Your task to perform on an android device: Open Youtube and go to the subscriptions tab Image 0: 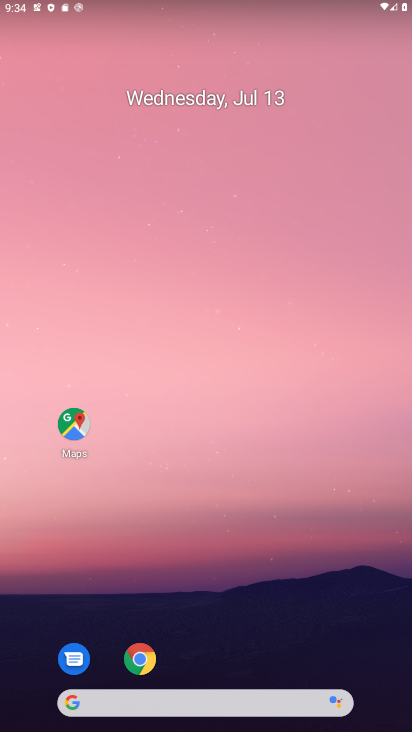
Step 0: click (229, 194)
Your task to perform on an android device: Open Youtube and go to the subscriptions tab Image 1: 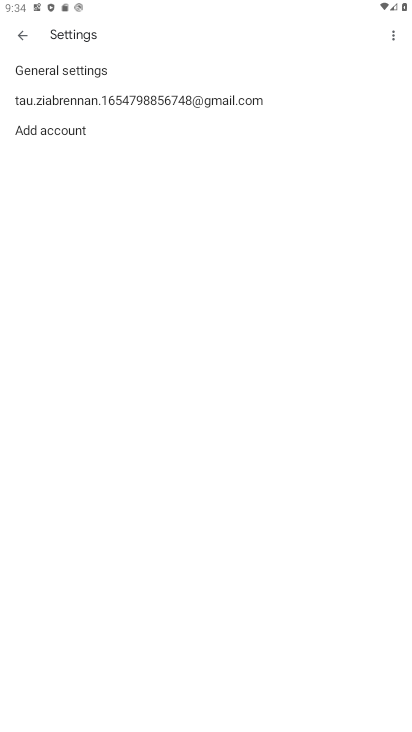
Step 1: press home button
Your task to perform on an android device: Open Youtube and go to the subscriptions tab Image 2: 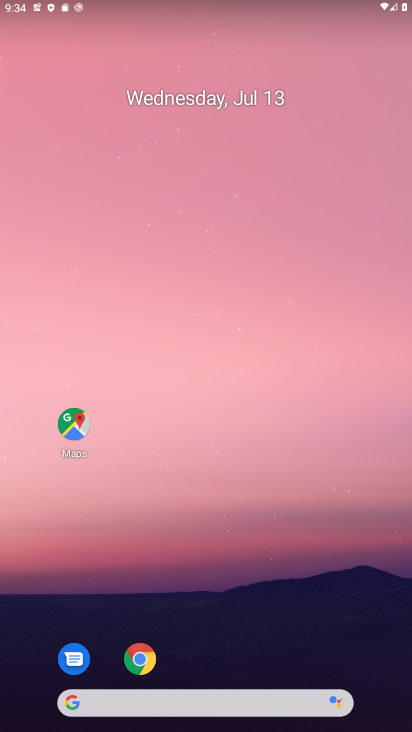
Step 2: drag from (239, 706) to (169, 149)
Your task to perform on an android device: Open Youtube and go to the subscriptions tab Image 3: 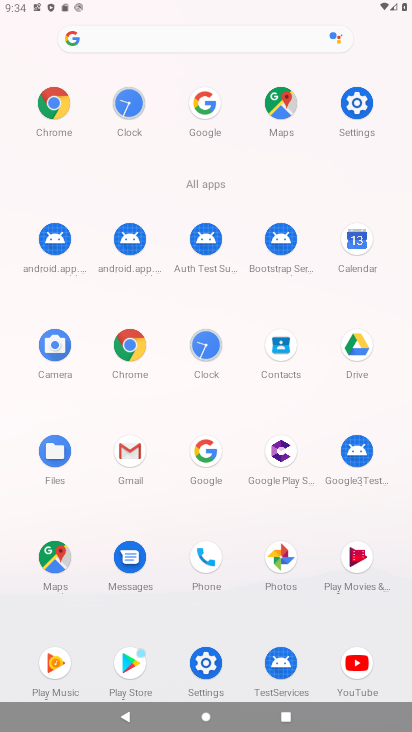
Step 3: click (355, 674)
Your task to perform on an android device: Open Youtube and go to the subscriptions tab Image 4: 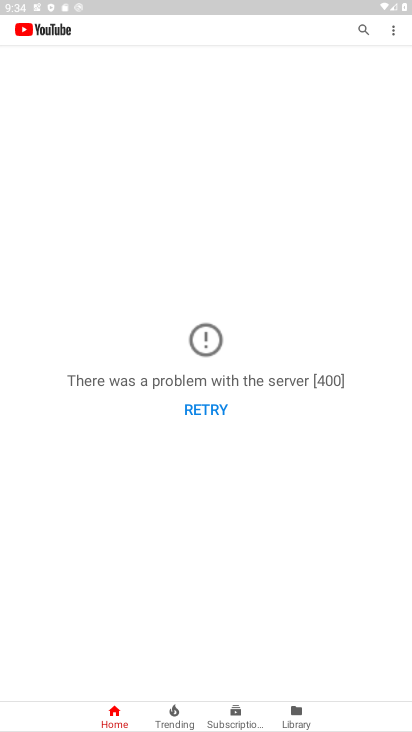
Step 4: click (240, 713)
Your task to perform on an android device: Open Youtube and go to the subscriptions tab Image 5: 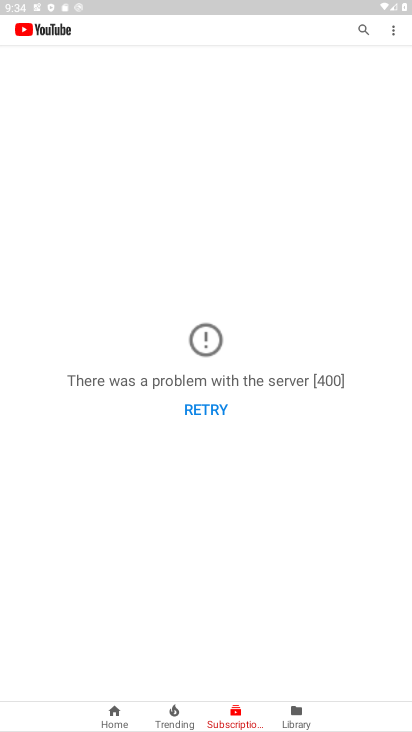
Step 5: task complete